Your task to perform on an android device: Go to Google maps Image 0: 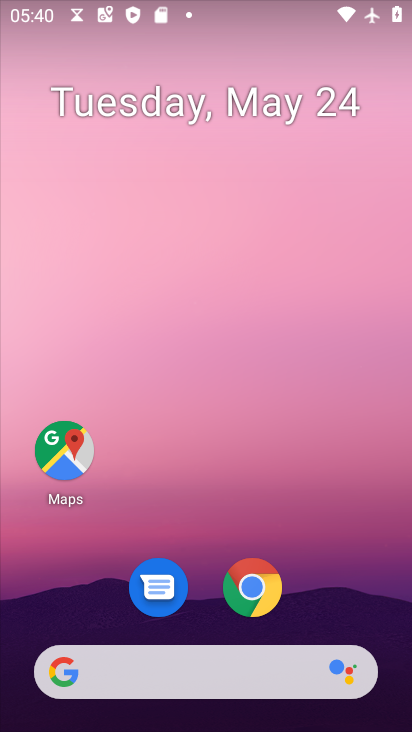
Step 0: click (51, 430)
Your task to perform on an android device: Go to Google maps Image 1: 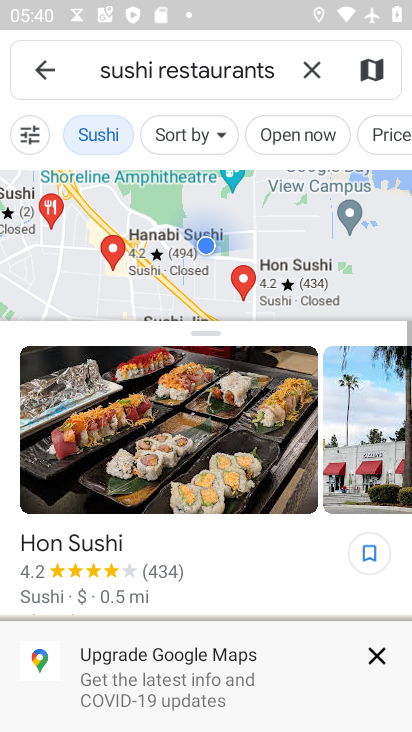
Step 1: task complete